Your task to perform on an android device: turn off airplane mode Image 0: 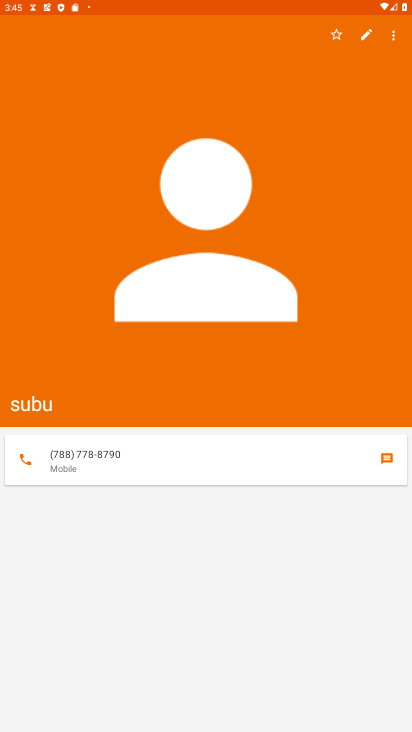
Step 0: press home button
Your task to perform on an android device: turn off airplane mode Image 1: 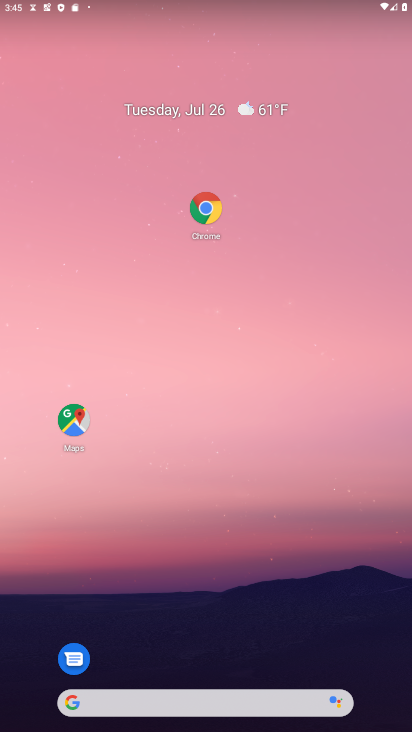
Step 1: drag from (183, 585) to (169, 184)
Your task to perform on an android device: turn off airplane mode Image 2: 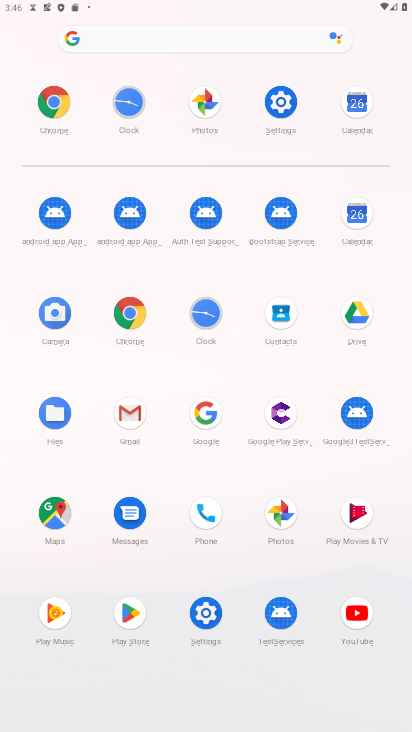
Step 2: click (270, 101)
Your task to perform on an android device: turn off airplane mode Image 3: 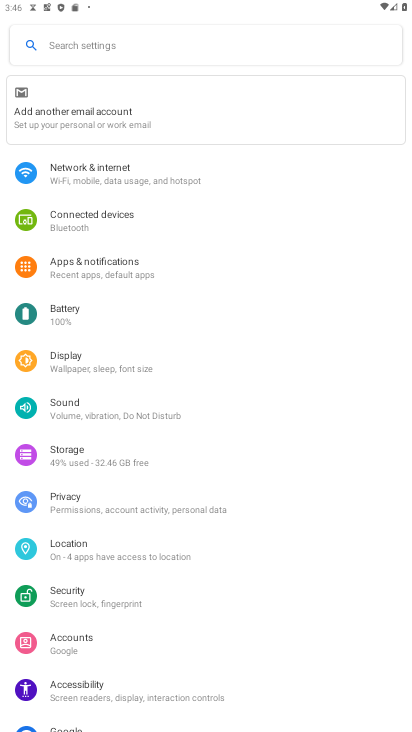
Step 3: click (106, 176)
Your task to perform on an android device: turn off airplane mode Image 4: 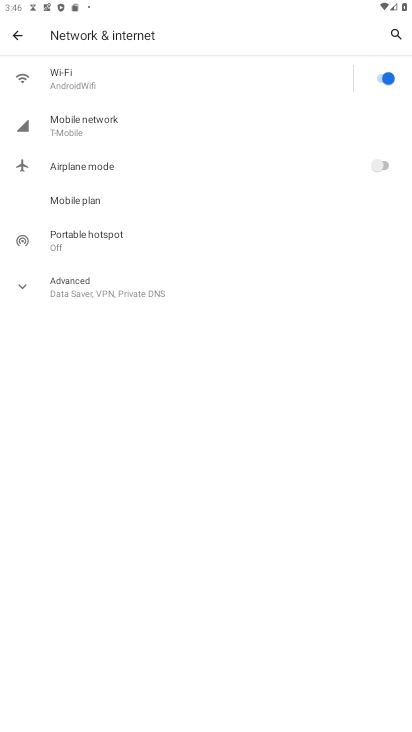
Step 4: task complete